Your task to perform on an android device: Open Amazon Image 0: 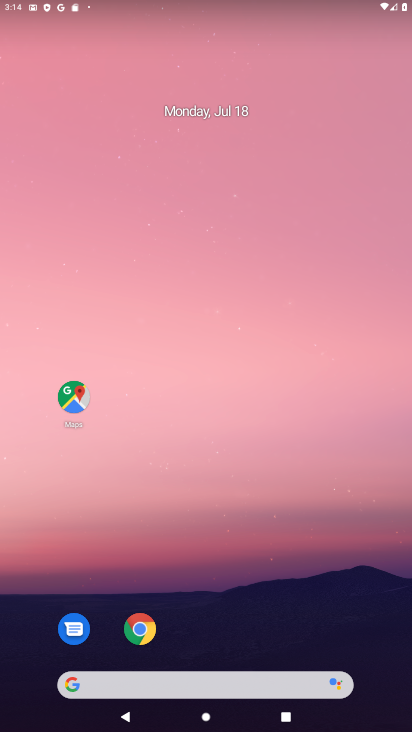
Step 0: click (148, 641)
Your task to perform on an android device: Open Amazon Image 1: 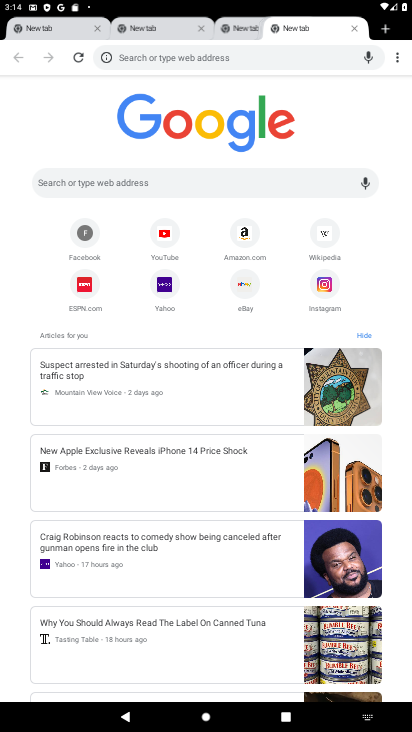
Step 1: click (237, 236)
Your task to perform on an android device: Open Amazon Image 2: 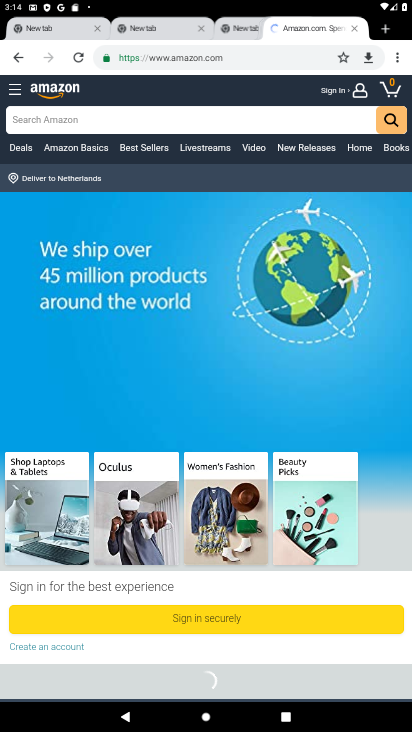
Step 2: task complete